Your task to perform on an android device: What's the weather today? Image 0: 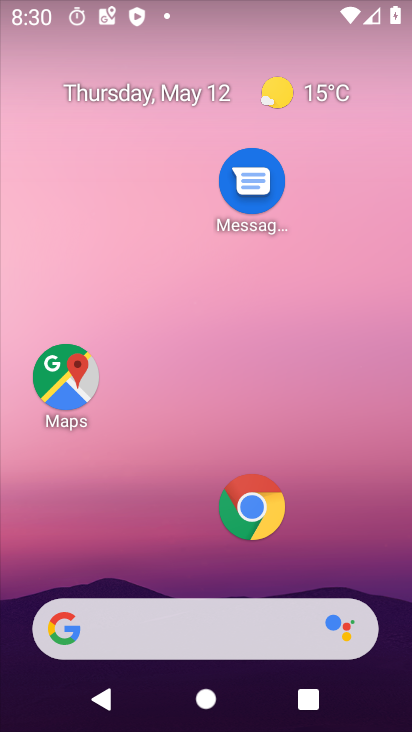
Step 0: click (145, 628)
Your task to perform on an android device: What's the weather today? Image 1: 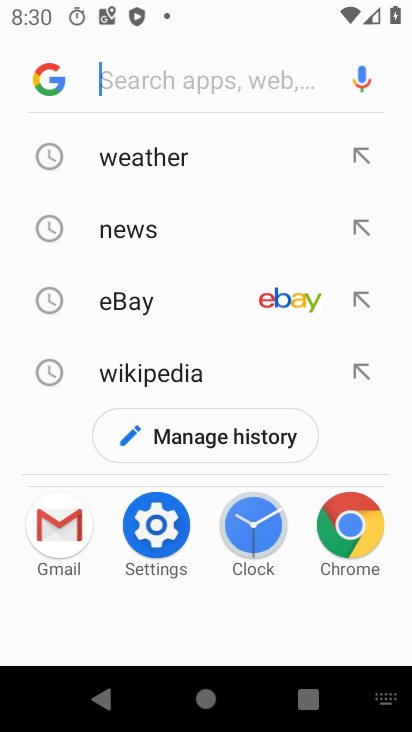
Step 1: type "what's the weather today"
Your task to perform on an android device: What's the weather today? Image 2: 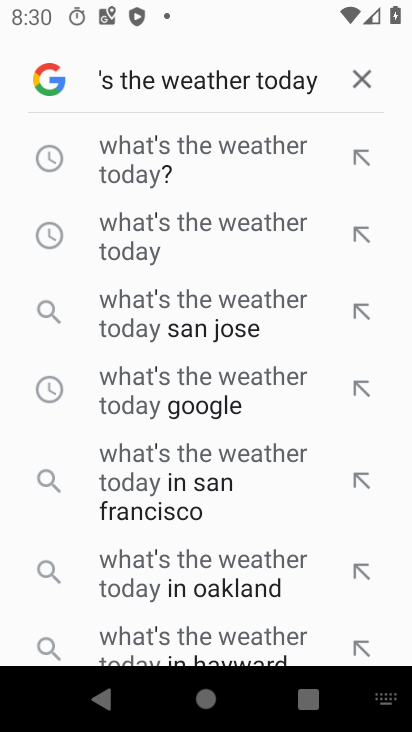
Step 2: click (175, 139)
Your task to perform on an android device: What's the weather today? Image 3: 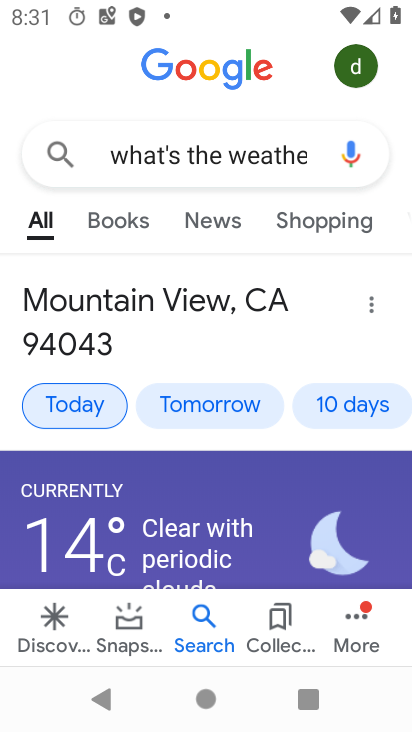
Step 3: task complete